Your task to perform on an android device: Search for the Best selling coffee table on Ikea Image 0: 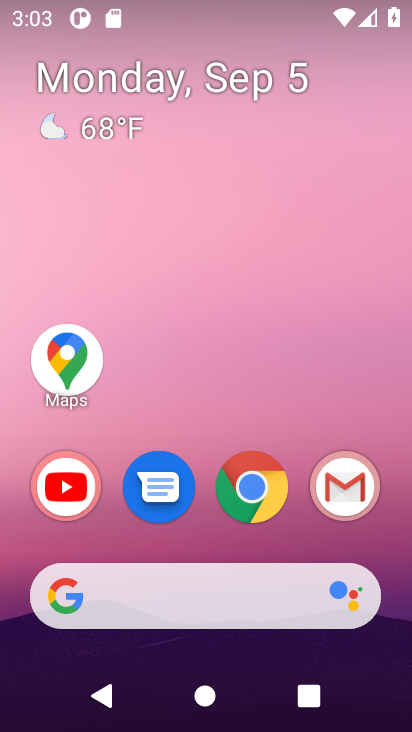
Step 0: click (248, 487)
Your task to perform on an android device: Search for the Best selling coffee table on Ikea Image 1: 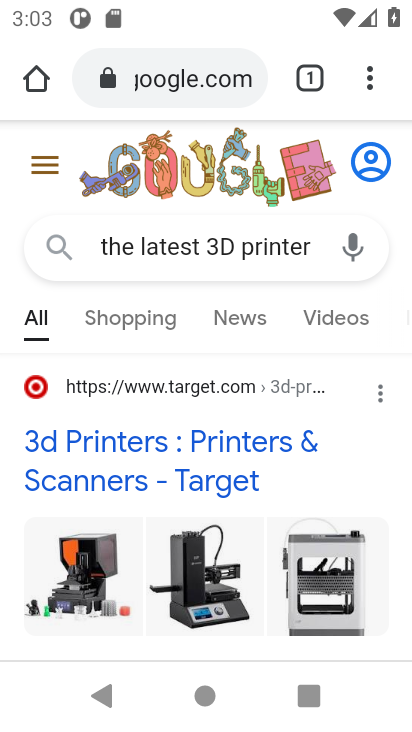
Step 1: click (196, 65)
Your task to perform on an android device: Search for the Best selling coffee table on Ikea Image 2: 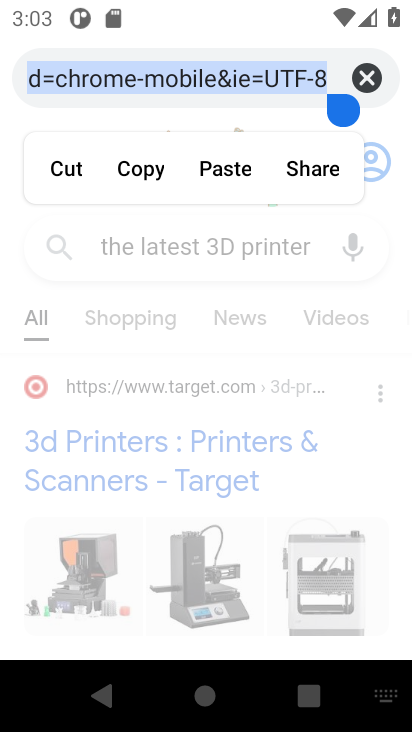
Step 2: click (358, 72)
Your task to perform on an android device: Search for the Best selling coffee table on Ikea Image 3: 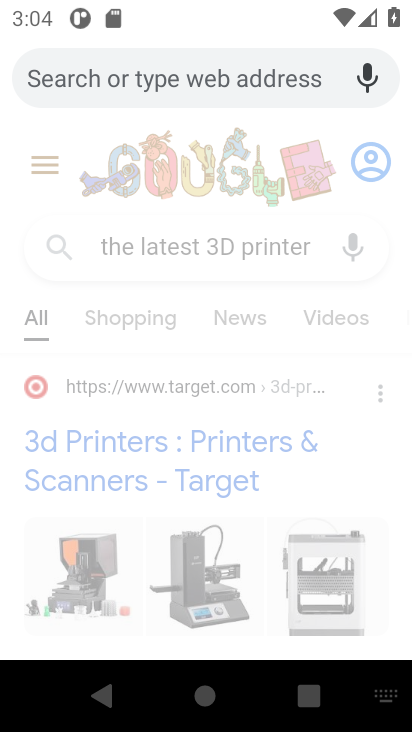
Step 3: type "the Best selling coffee table on Ikea"
Your task to perform on an android device: Search for the Best selling coffee table on Ikea Image 4: 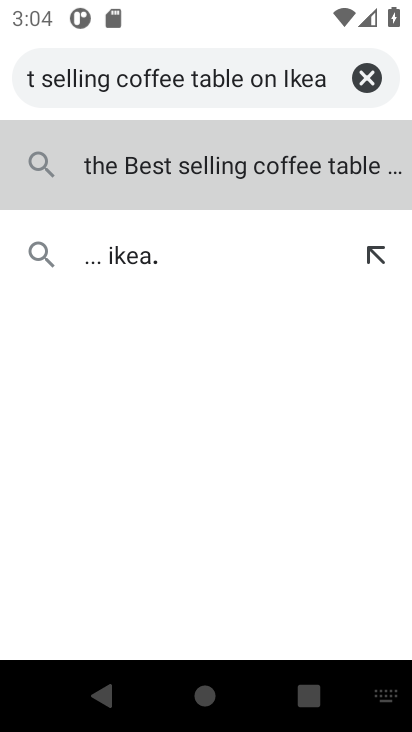
Step 4: click (307, 174)
Your task to perform on an android device: Search for the Best selling coffee table on Ikea Image 5: 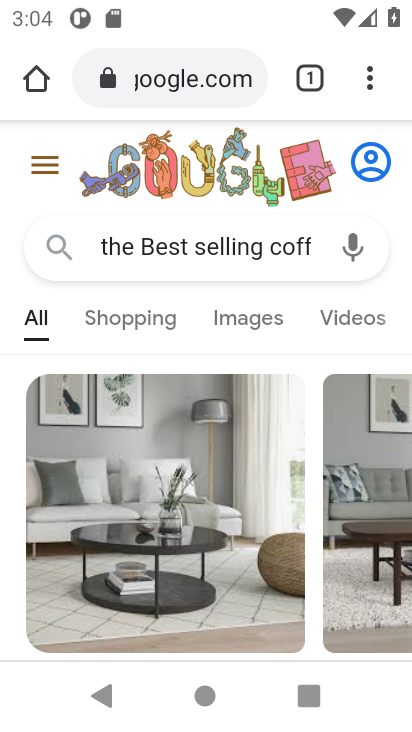
Step 5: task complete